Your task to perform on an android device: What's the weather going to be this weekend? Image 0: 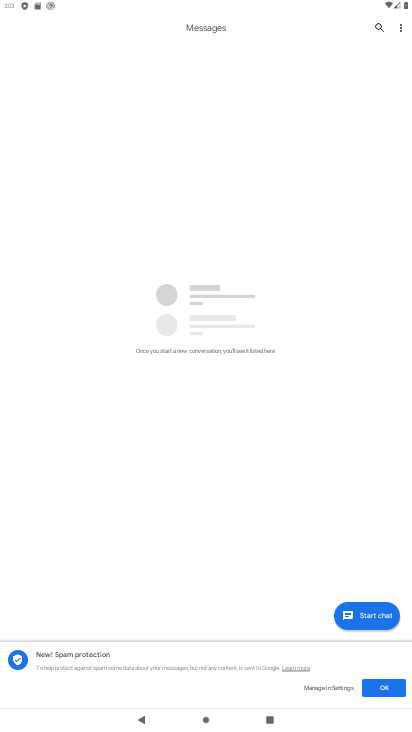
Step 0: press home button
Your task to perform on an android device: What's the weather going to be this weekend? Image 1: 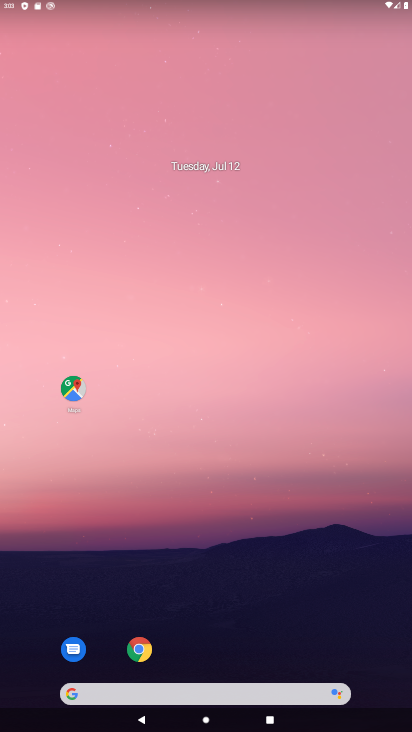
Step 1: drag from (106, 666) to (145, 333)
Your task to perform on an android device: What's the weather going to be this weekend? Image 2: 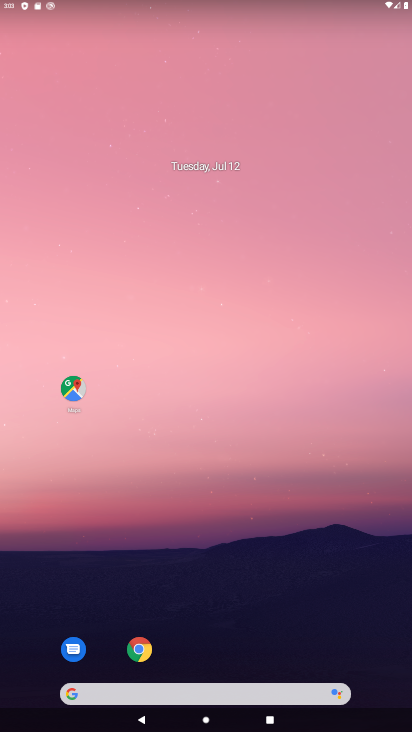
Step 2: drag from (209, 689) to (221, 81)
Your task to perform on an android device: What's the weather going to be this weekend? Image 3: 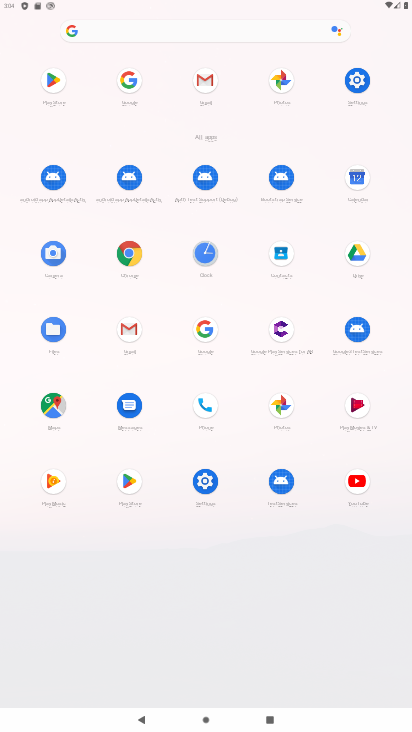
Step 3: click (133, 76)
Your task to perform on an android device: What's the weather going to be this weekend? Image 4: 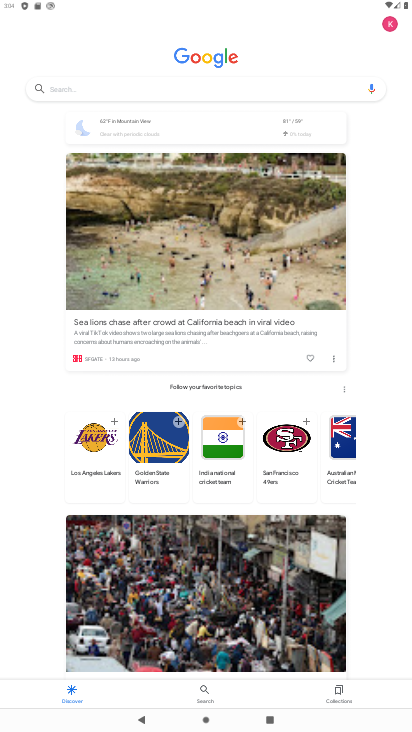
Step 4: click (138, 130)
Your task to perform on an android device: What's the weather going to be this weekend? Image 5: 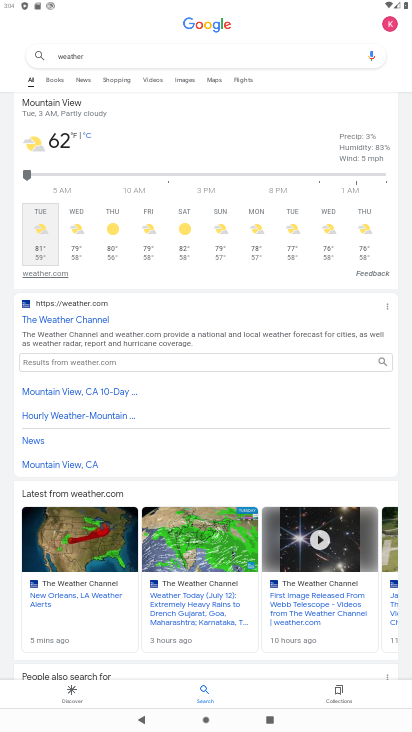
Step 5: task complete